Your task to perform on an android device: Go to ESPN.com Image 0: 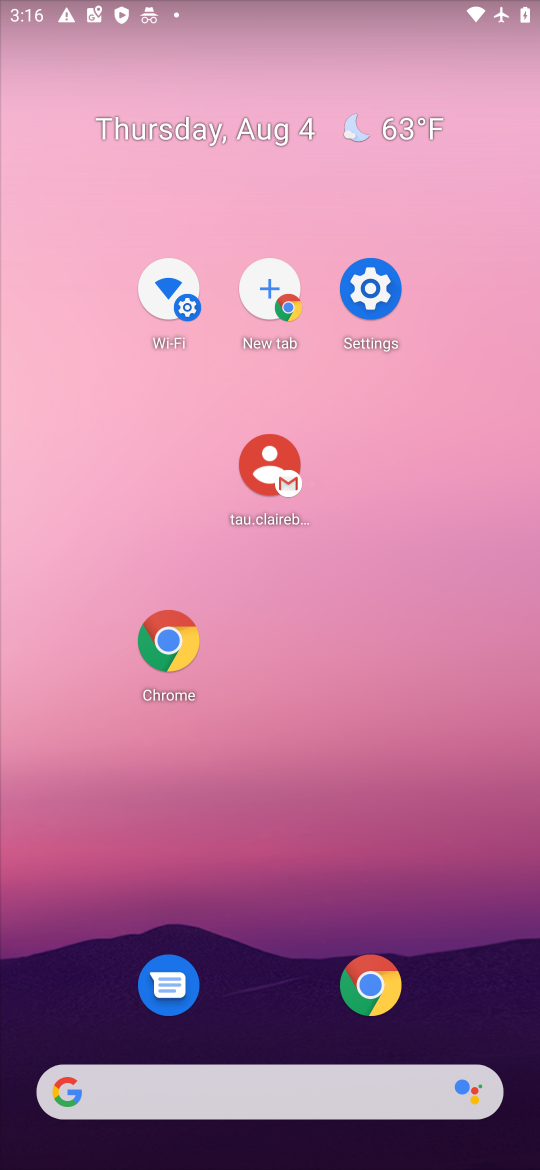
Step 0: press back button
Your task to perform on an android device: Go to ESPN.com Image 1: 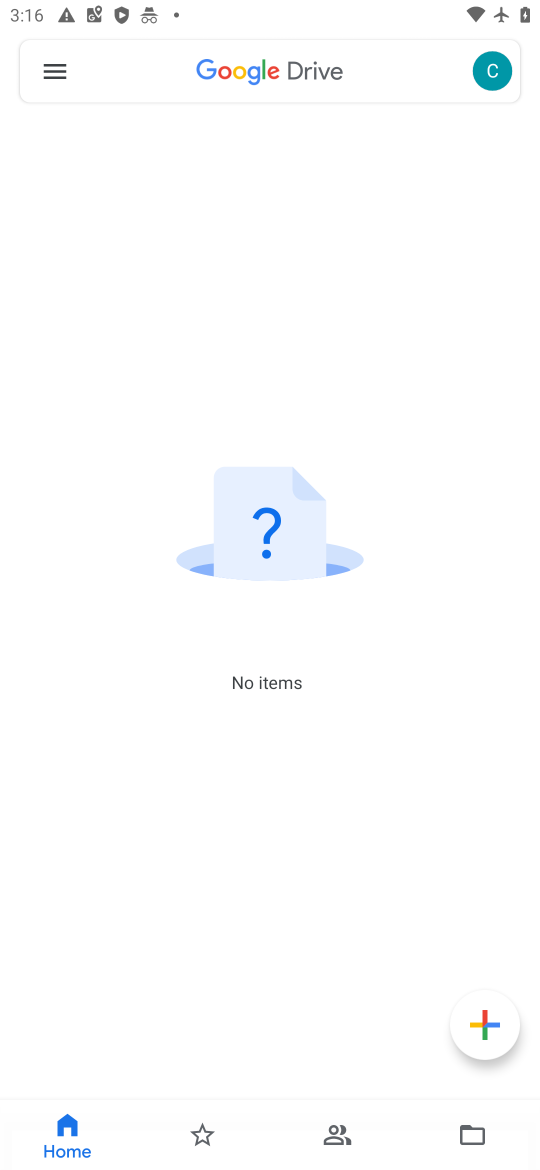
Step 1: press back button
Your task to perform on an android device: Go to ESPN.com Image 2: 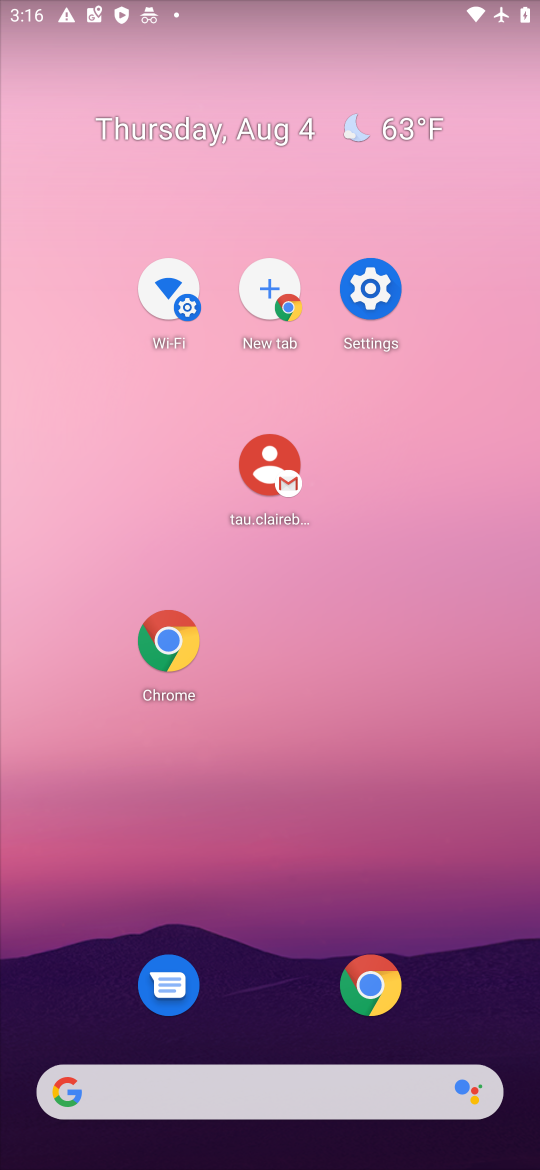
Step 2: drag from (211, 1005) to (14, 152)
Your task to perform on an android device: Go to ESPN.com Image 3: 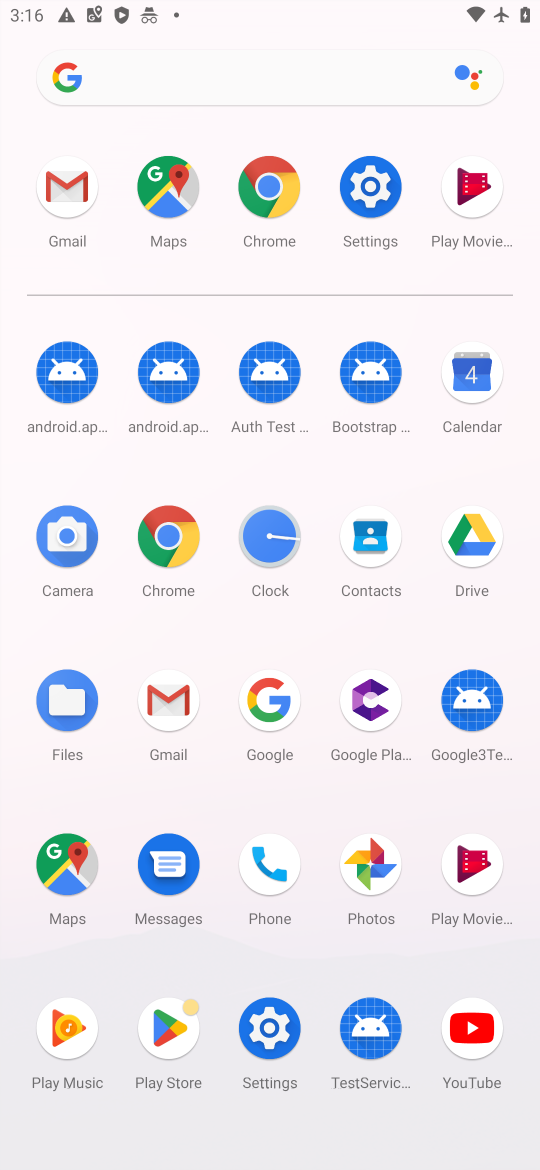
Step 3: click (265, 196)
Your task to perform on an android device: Go to ESPN.com Image 4: 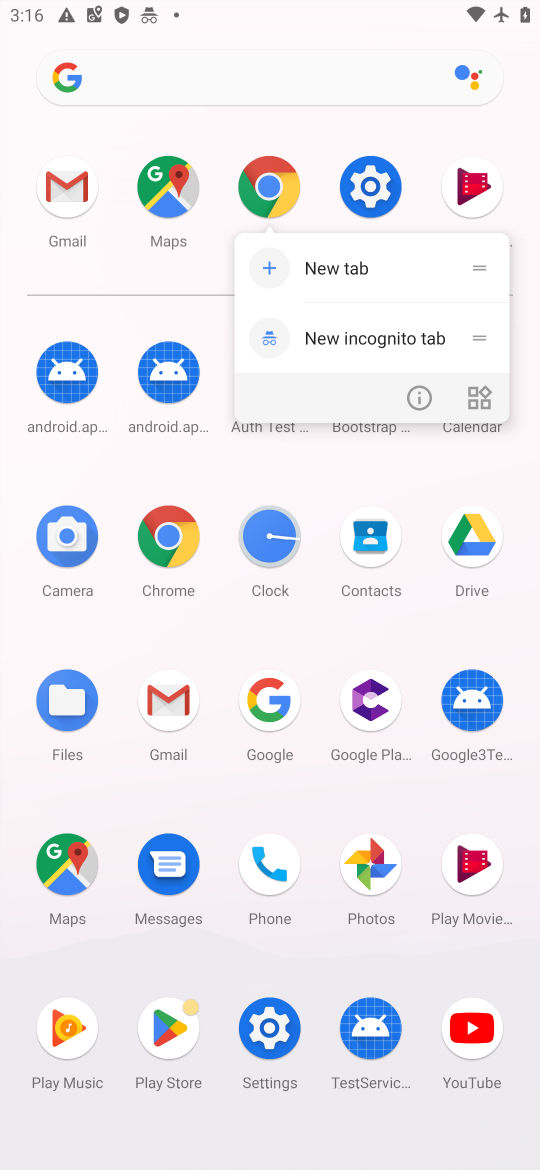
Step 4: click (269, 187)
Your task to perform on an android device: Go to ESPN.com Image 5: 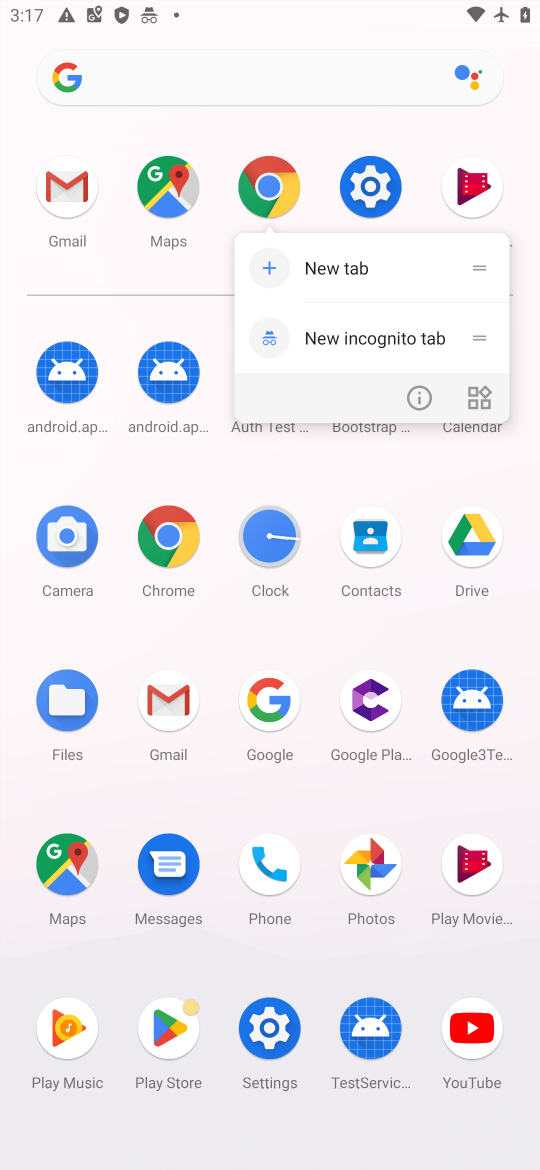
Step 5: click (270, 186)
Your task to perform on an android device: Go to ESPN.com Image 6: 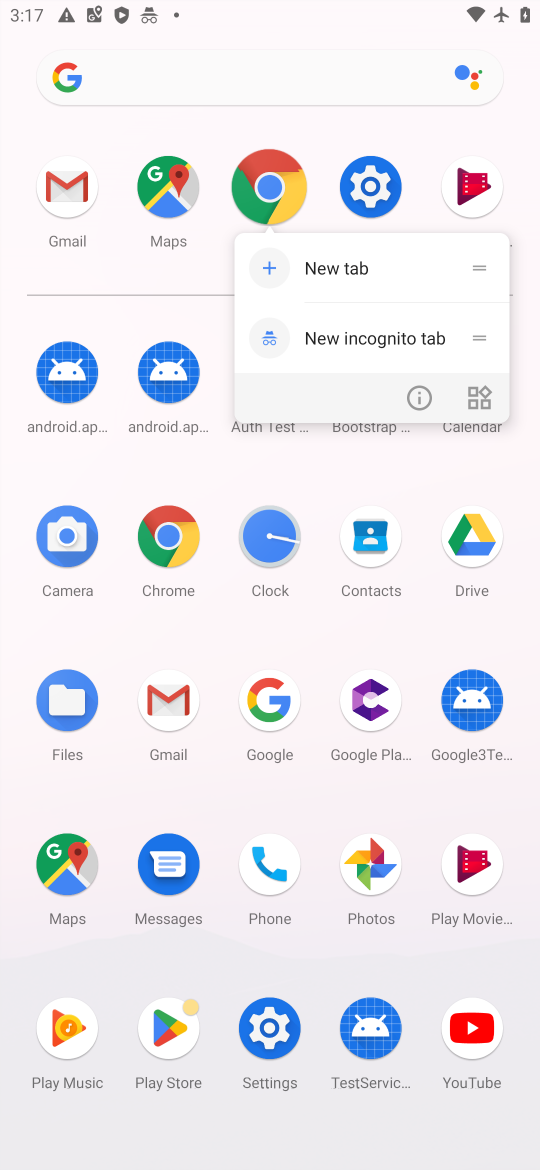
Step 6: click (270, 186)
Your task to perform on an android device: Go to ESPN.com Image 7: 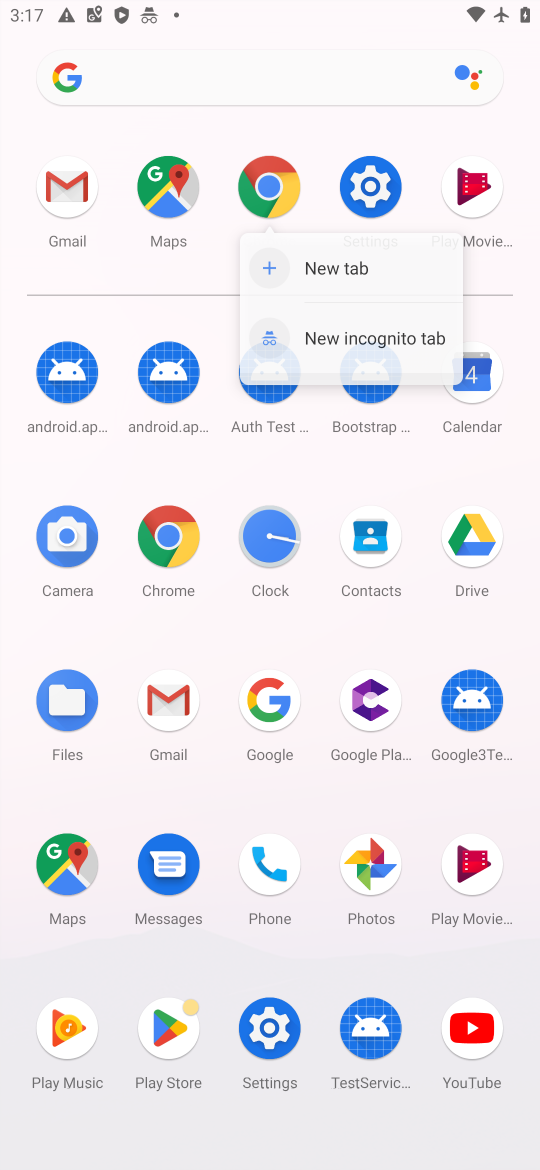
Step 7: click (270, 186)
Your task to perform on an android device: Go to ESPN.com Image 8: 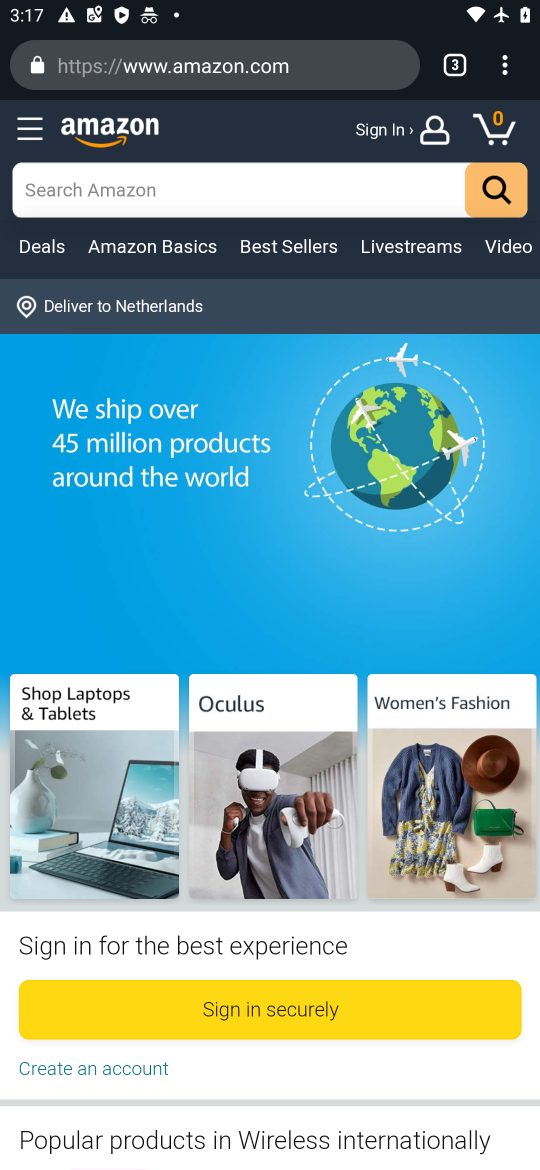
Step 8: click (514, 68)
Your task to perform on an android device: Go to ESPN.com Image 9: 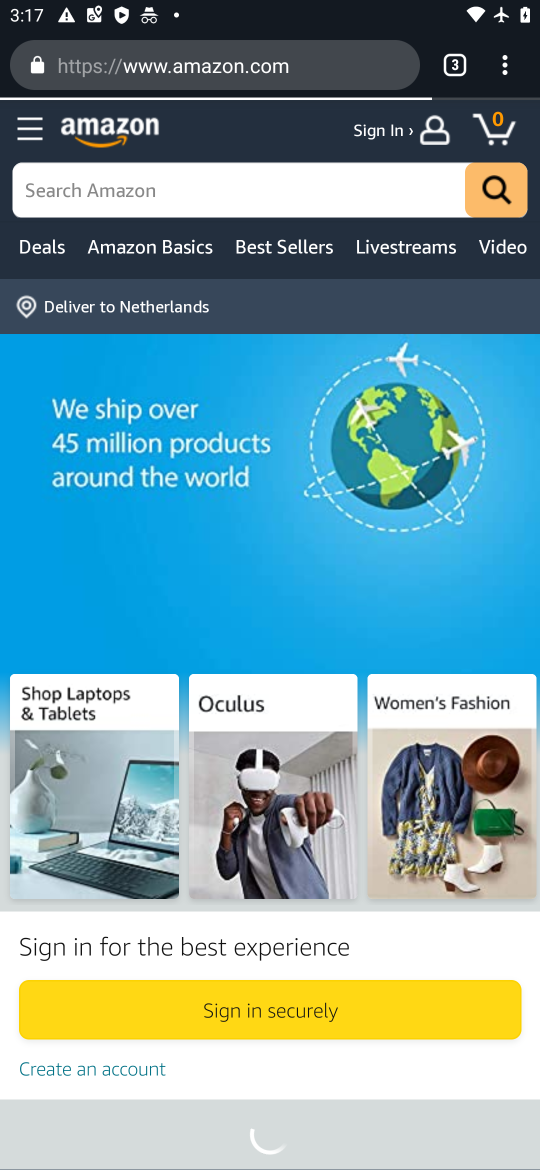
Step 9: click (494, 64)
Your task to perform on an android device: Go to ESPN.com Image 10: 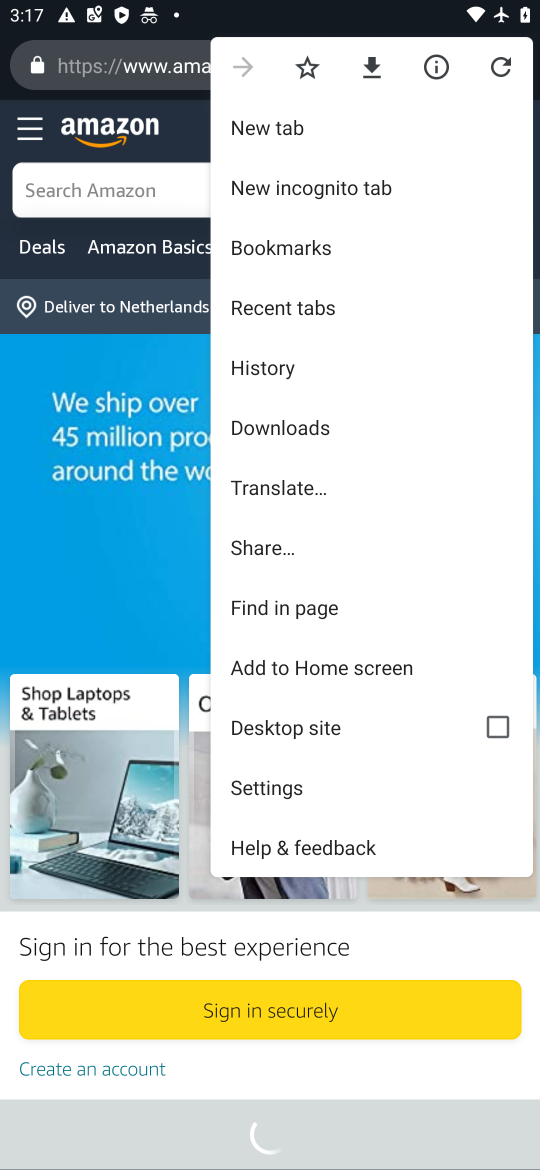
Step 10: click (270, 116)
Your task to perform on an android device: Go to ESPN.com Image 11: 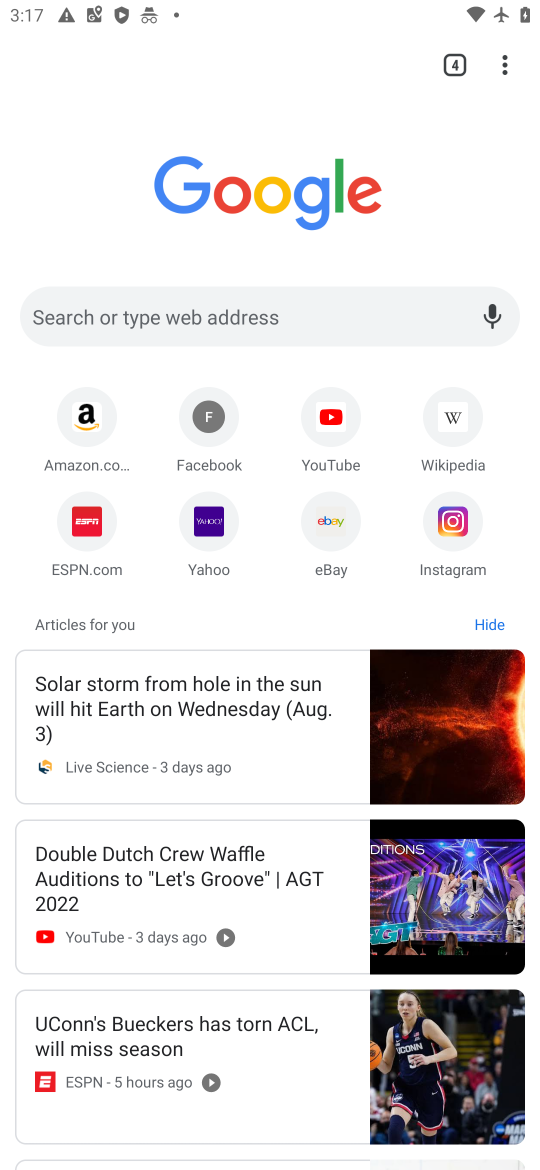
Step 11: click (64, 524)
Your task to perform on an android device: Go to ESPN.com Image 12: 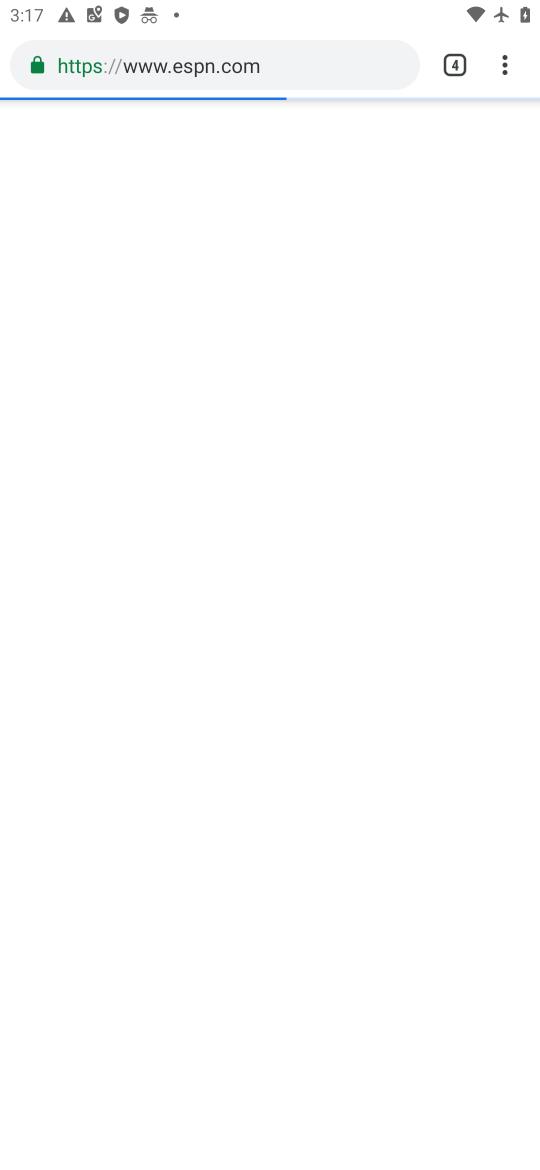
Step 12: task complete